Your task to perform on an android device: Search for "alienware area 51" on target.com, select the first entry, add it to the cart, then select checkout. Image 0: 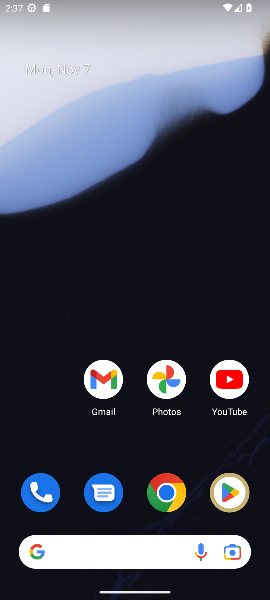
Step 0: click (164, 491)
Your task to perform on an android device: Search for "alienware area 51" on target.com, select the first entry, add it to the cart, then select checkout. Image 1: 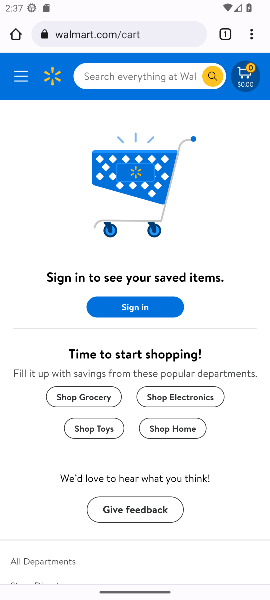
Step 1: click (116, 33)
Your task to perform on an android device: Search for "alienware area 51" on target.com, select the first entry, add it to the cart, then select checkout. Image 2: 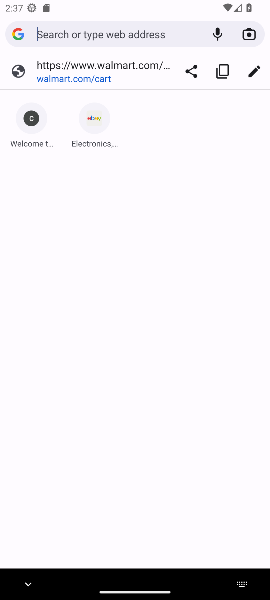
Step 2: type "target.com"
Your task to perform on an android device: Search for "alienware area 51" on target.com, select the first entry, add it to the cart, then select checkout. Image 3: 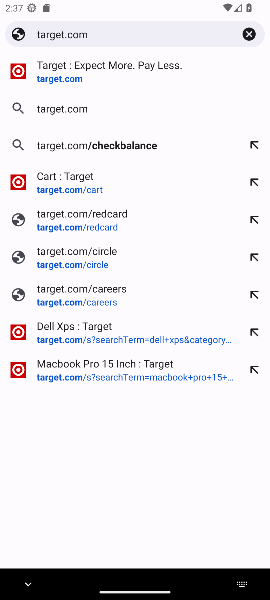
Step 3: click (81, 109)
Your task to perform on an android device: Search for "alienware area 51" on target.com, select the first entry, add it to the cart, then select checkout. Image 4: 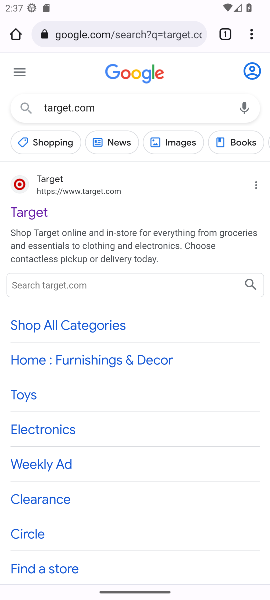
Step 4: click (32, 212)
Your task to perform on an android device: Search for "alienware area 51" on target.com, select the first entry, add it to the cart, then select checkout. Image 5: 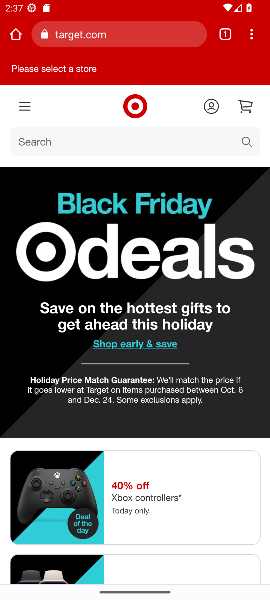
Step 5: click (87, 148)
Your task to perform on an android device: Search for "alienware area 51" on target.com, select the first entry, add it to the cart, then select checkout. Image 6: 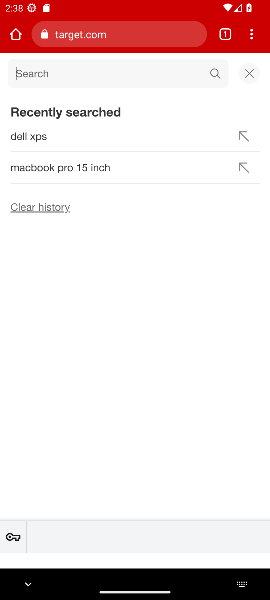
Step 6: type "alienware area 51"
Your task to perform on an android device: Search for "alienware area 51" on target.com, select the first entry, add it to the cart, then select checkout. Image 7: 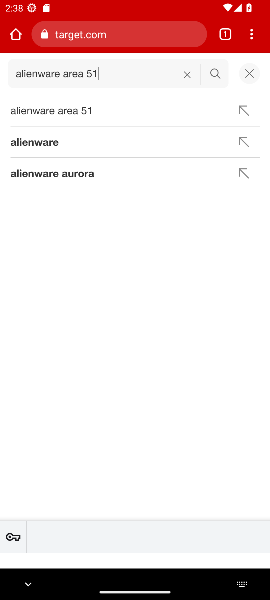
Step 7: click (73, 112)
Your task to perform on an android device: Search for "alienware area 51" on target.com, select the first entry, add it to the cart, then select checkout. Image 8: 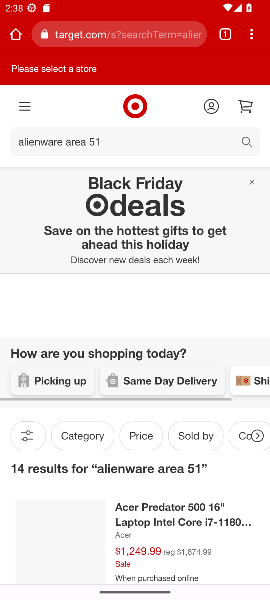
Step 8: drag from (185, 327) to (162, 216)
Your task to perform on an android device: Search for "alienware area 51" on target.com, select the first entry, add it to the cart, then select checkout. Image 9: 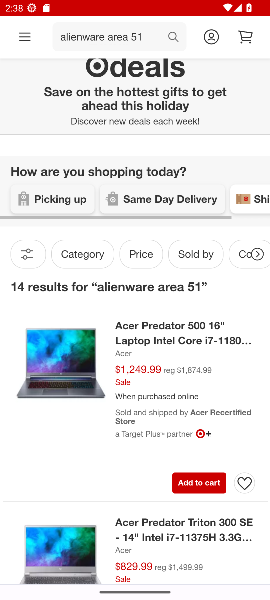
Step 9: drag from (166, 304) to (153, 233)
Your task to perform on an android device: Search for "alienware area 51" on target.com, select the first entry, add it to the cart, then select checkout. Image 10: 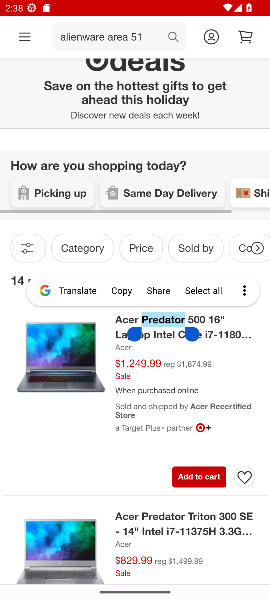
Step 10: click (157, 332)
Your task to perform on an android device: Search for "alienware area 51" on target.com, select the first entry, add it to the cart, then select checkout. Image 11: 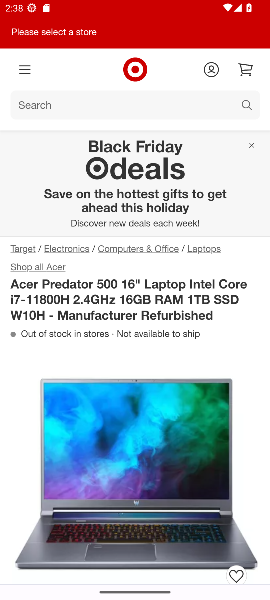
Step 11: drag from (172, 361) to (151, 251)
Your task to perform on an android device: Search for "alienware area 51" on target.com, select the first entry, add it to the cart, then select checkout. Image 12: 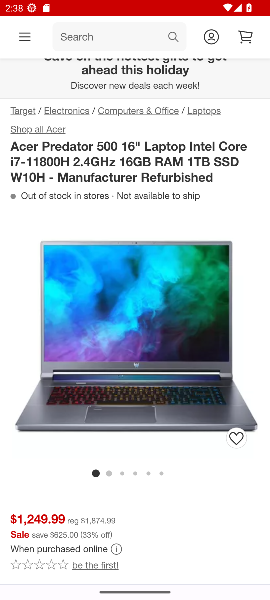
Step 12: click (182, 538)
Your task to perform on an android device: Search for "alienware area 51" on target.com, select the first entry, add it to the cart, then select checkout. Image 13: 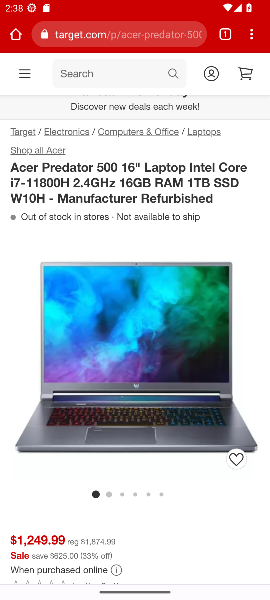
Step 13: press back button
Your task to perform on an android device: Search for "alienware area 51" on target.com, select the first entry, add it to the cart, then select checkout. Image 14: 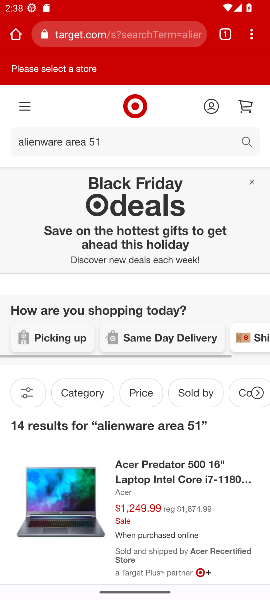
Step 14: drag from (216, 438) to (149, 197)
Your task to perform on an android device: Search for "alienware area 51" on target.com, select the first entry, add it to the cart, then select checkout. Image 15: 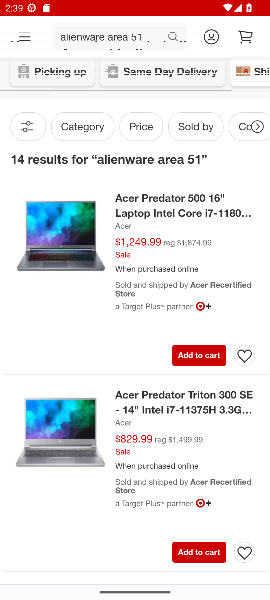
Step 15: click (135, 208)
Your task to perform on an android device: Search for "alienware area 51" on target.com, select the first entry, add it to the cart, then select checkout. Image 16: 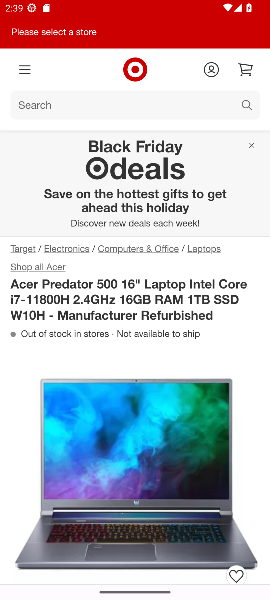
Step 16: drag from (216, 336) to (179, 132)
Your task to perform on an android device: Search for "alienware area 51" on target.com, select the first entry, add it to the cart, then select checkout. Image 17: 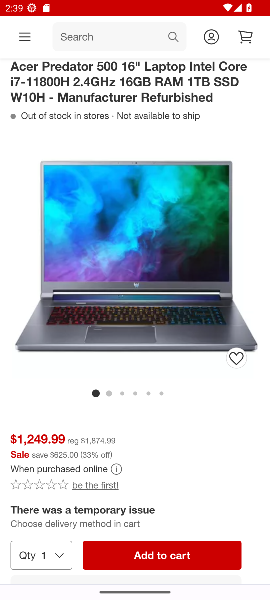
Step 17: click (155, 558)
Your task to perform on an android device: Search for "alienware area 51" on target.com, select the first entry, add it to the cart, then select checkout. Image 18: 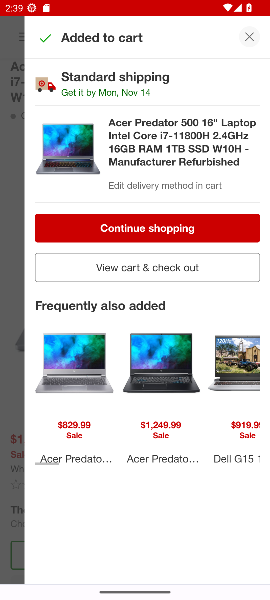
Step 18: click (175, 267)
Your task to perform on an android device: Search for "alienware area 51" on target.com, select the first entry, add it to the cart, then select checkout. Image 19: 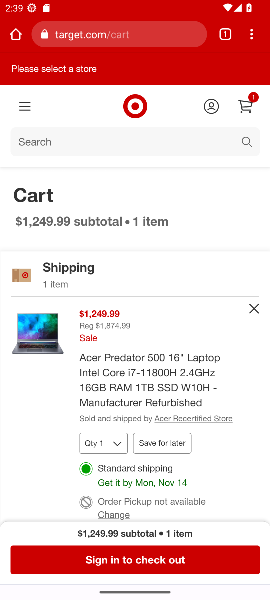
Step 19: click (137, 564)
Your task to perform on an android device: Search for "alienware area 51" on target.com, select the first entry, add it to the cart, then select checkout. Image 20: 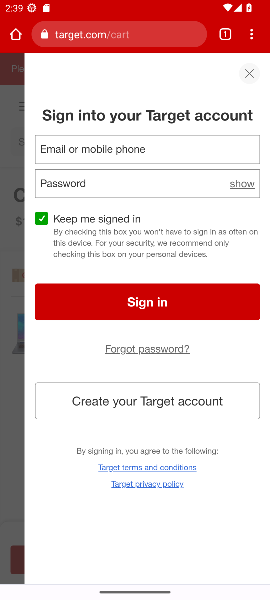
Step 20: task complete